Your task to perform on an android device: refresh tabs in the chrome app Image 0: 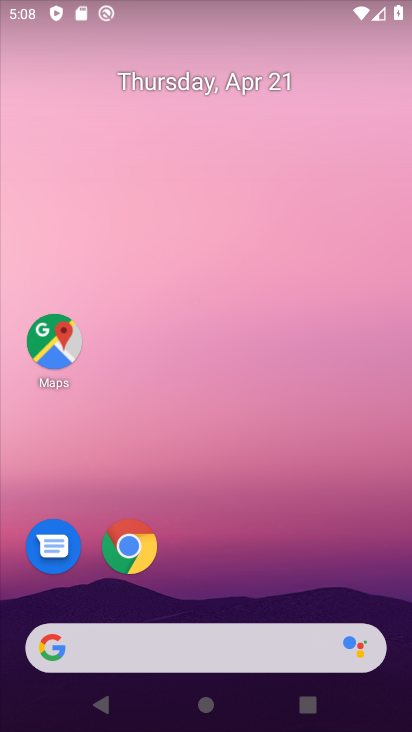
Step 0: click (128, 546)
Your task to perform on an android device: refresh tabs in the chrome app Image 1: 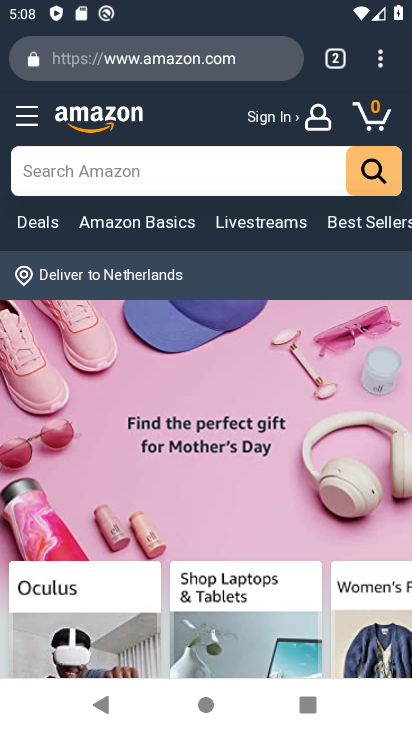
Step 1: click (382, 58)
Your task to perform on an android device: refresh tabs in the chrome app Image 2: 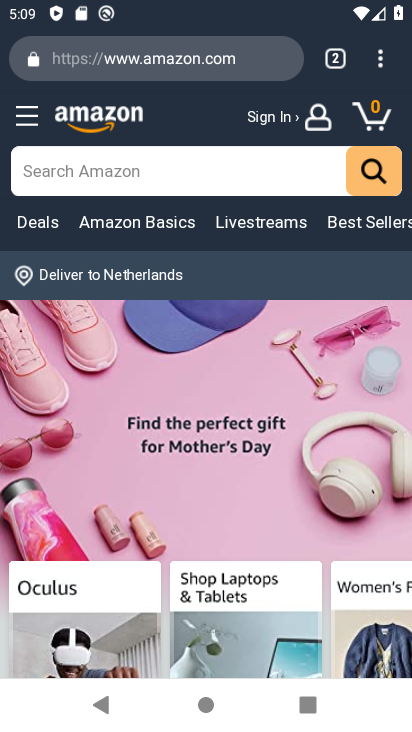
Step 2: task complete